Your task to perform on an android device: Open Youtube and go to the subscriptions tab Image 0: 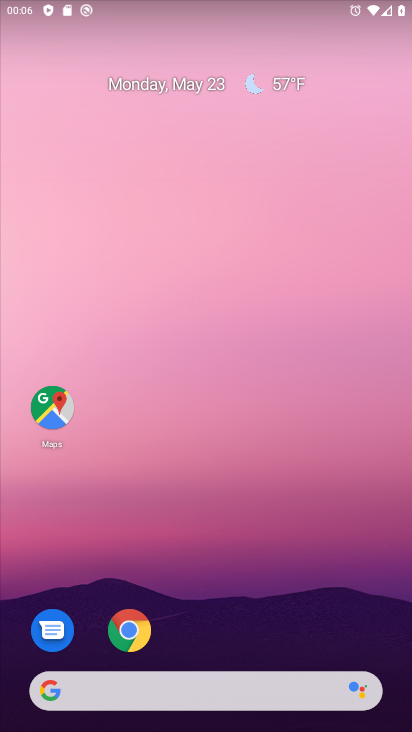
Step 0: drag from (291, 431) to (288, 29)
Your task to perform on an android device: Open Youtube and go to the subscriptions tab Image 1: 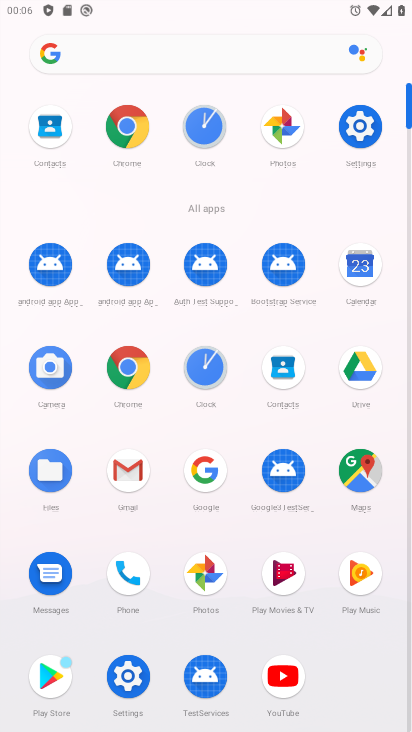
Step 1: click (296, 677)
Your task to perform on an android device: Open Youtube and go to the subscriptions tab Image 2: 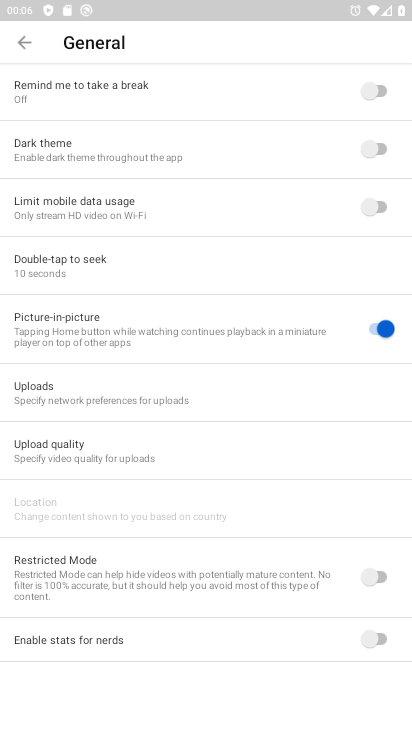
Step 2: click (23, 42)
Your task to perform on an android device: Open Youtube and go to the subscriptions tab Image 3: 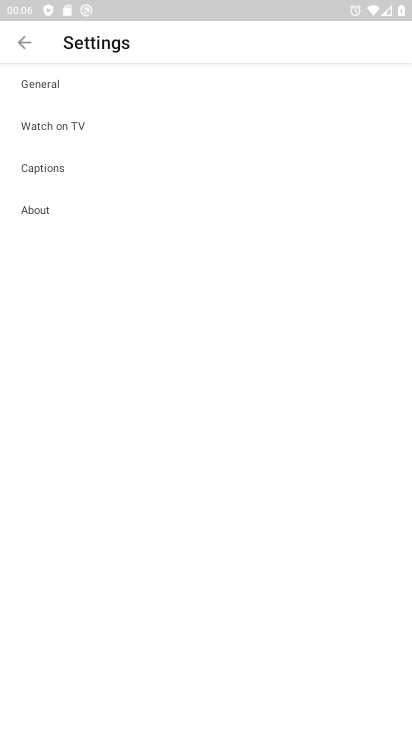
Step 3: click (28, 55)
Your task to perform on an android device: Open Youtube and go to the subscriptions tab Image 4: 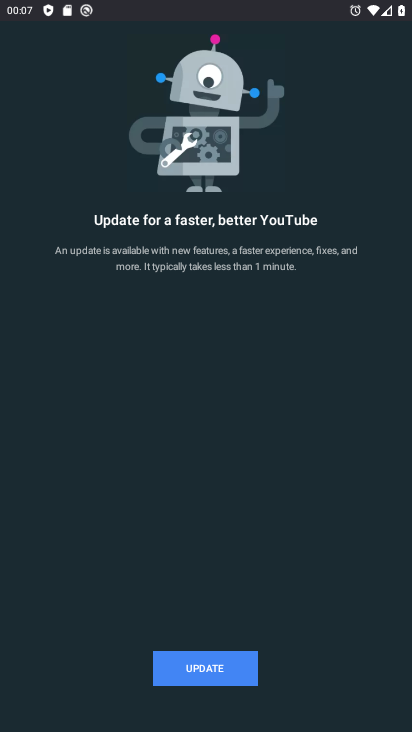
Step 4: click (197, 674)
Your task to perform on an android device: Open Youtube and go to the subscriptions tab Image 5: 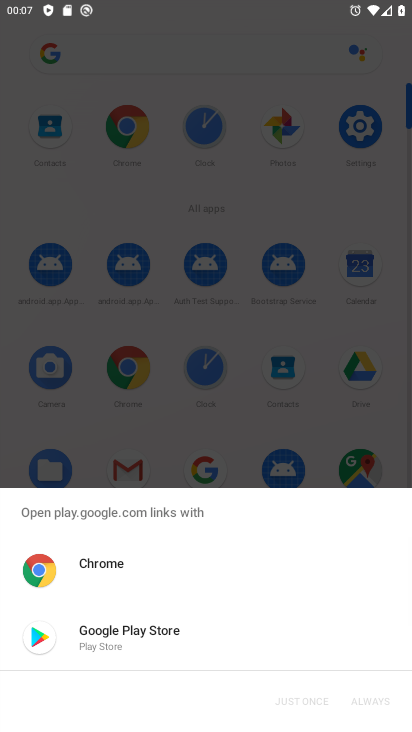
Step 5: click (99, 628)
Your task to perform on an android device: Open Youtube and go to the subscriptions tab Image 6: 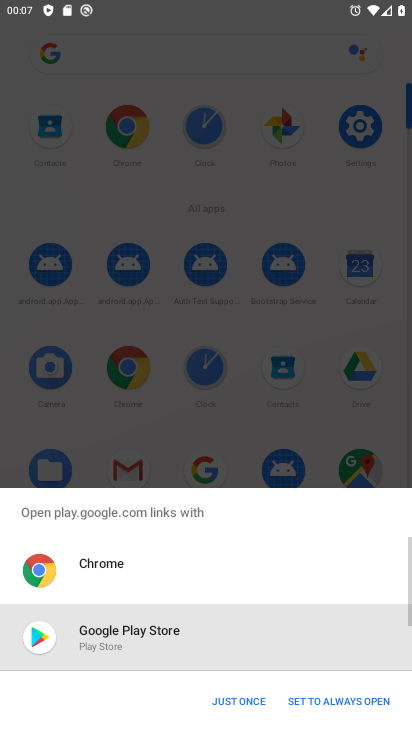
Step 6: click (233, 699)
Your task to perform on an android device: Open Youtube and go to the subscriptions tab Image 7: 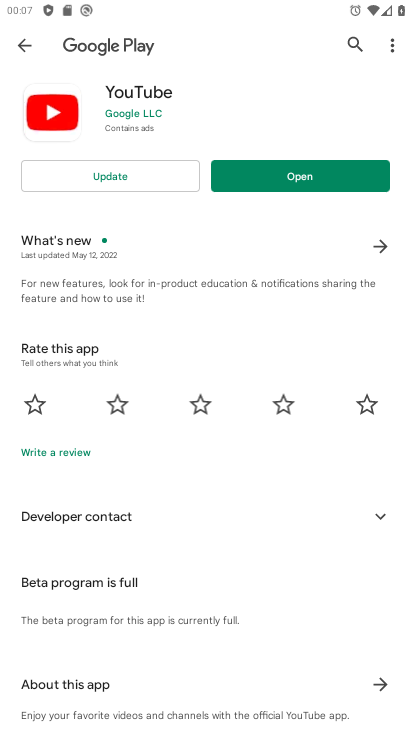
Step 7: click (118, 174)
Your task to perform on an android device: Open Youtube and go to the subscriptions tab Image 8: 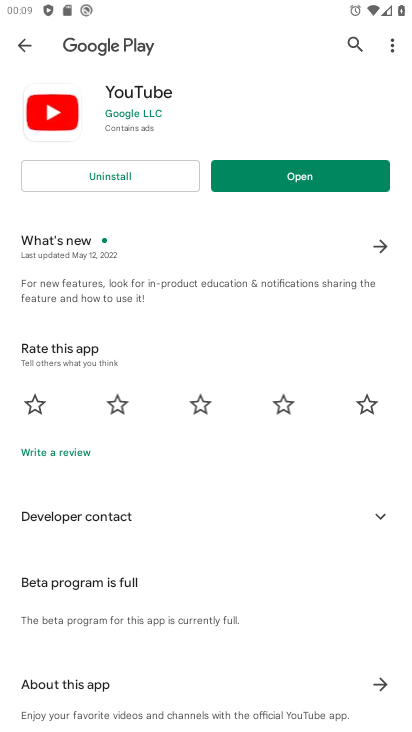
Step 8: click (276, 173)
Your task to perform on an android device: Open Youtube and go to the subscriptions tab Image 9: 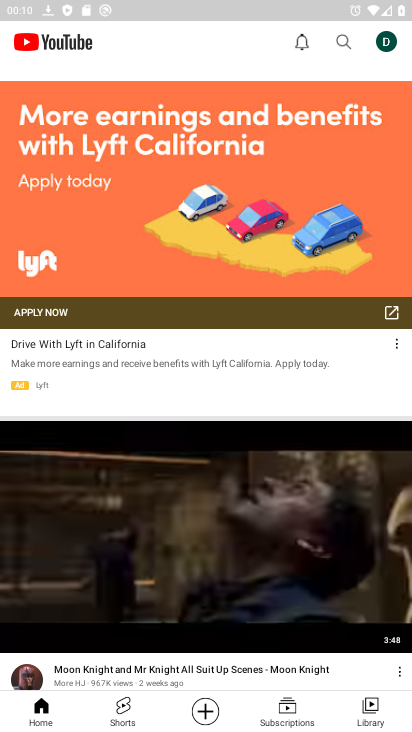
Step 9: click (292, 704)
Your task to perform on an android device: Open Youtube and go to the subscriptions tab Image 10: 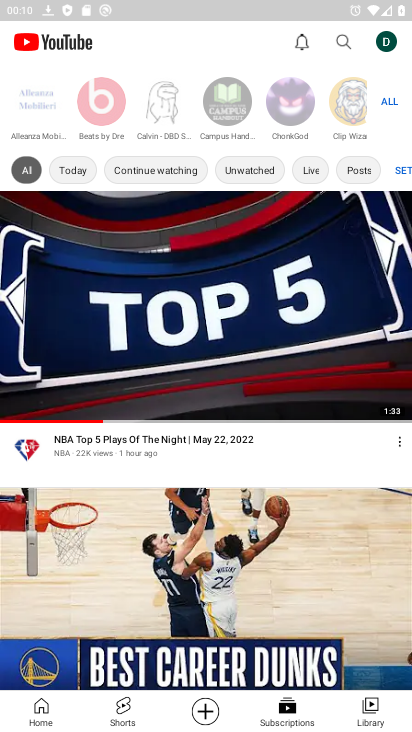
Step 10: task complete